Your task to perform on an android device: What's the weather going to be this weekend? Image 0: 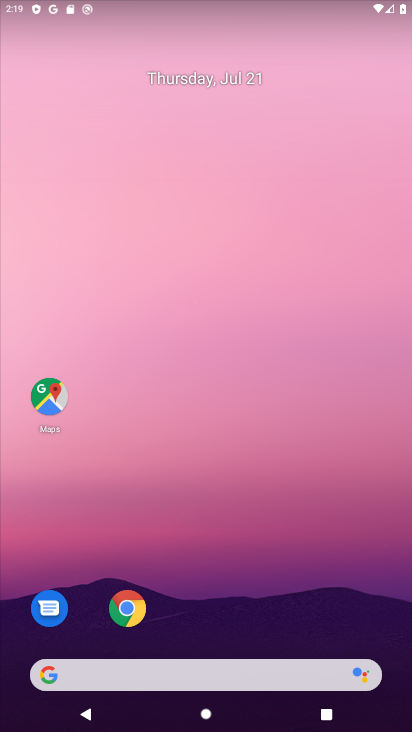
Step 0: drag from (243, 647) to (193, 46)
Your task to perform on an android device: What's the weather going to be this weekend? Image 1: 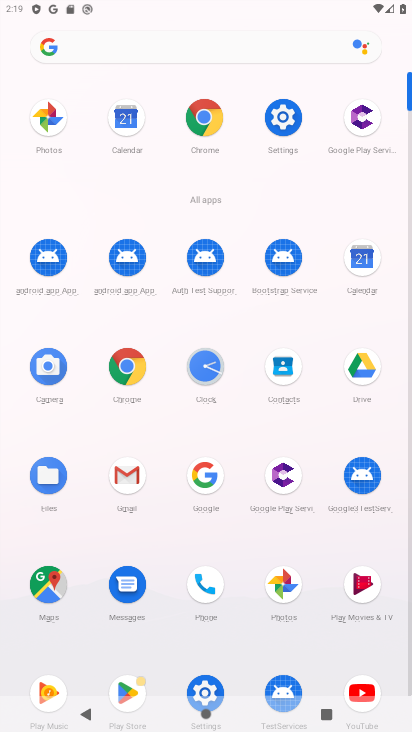
Step 1: click (200, 474)
Your task to perform on an android device: What's the weather going to be this weekend? Image 2: 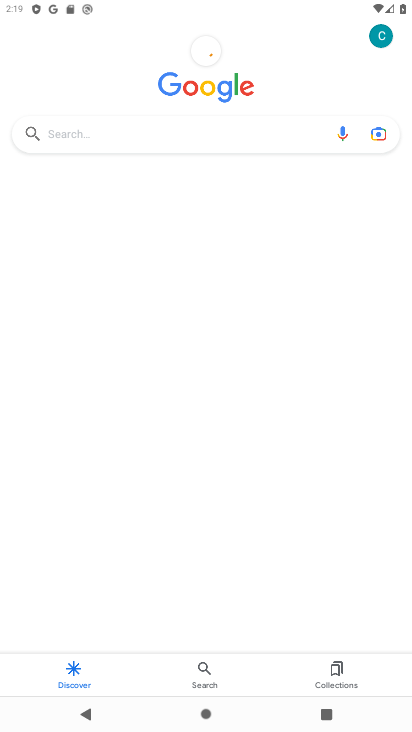
Step 2: click (92, 145)
Your task to perform on an android device: What's the weather going to be this weekend? Image 3: 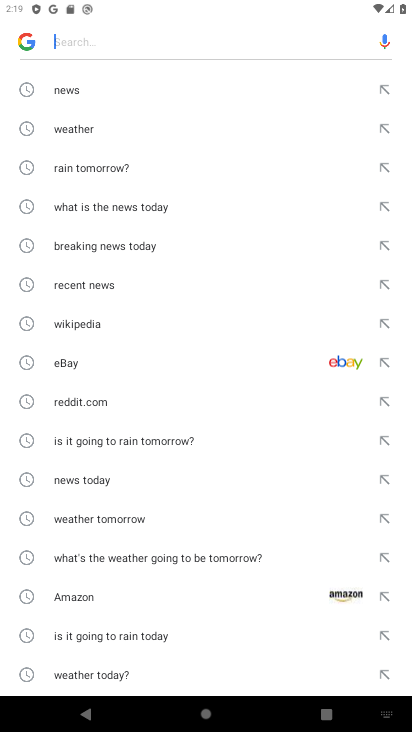
Step 3: click (85, 135)
Your task to perform on an android device: What's the weather going to be this weekend? Image 4: 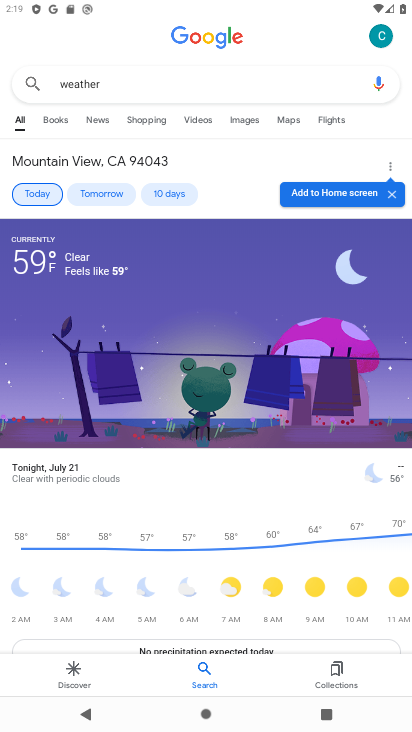
Step 4: click (159, 194)
Your task to perform on an android device: What's the weather going to be this weekend? Image 5: 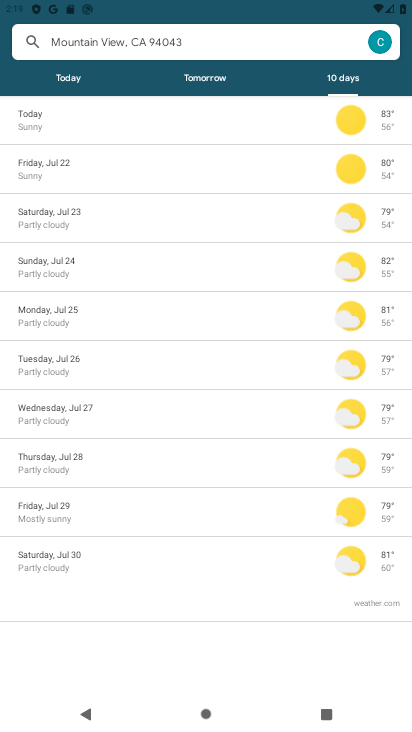
Step 5: task complete